Your task to perform on an android device: turn notification dots off Image 0: 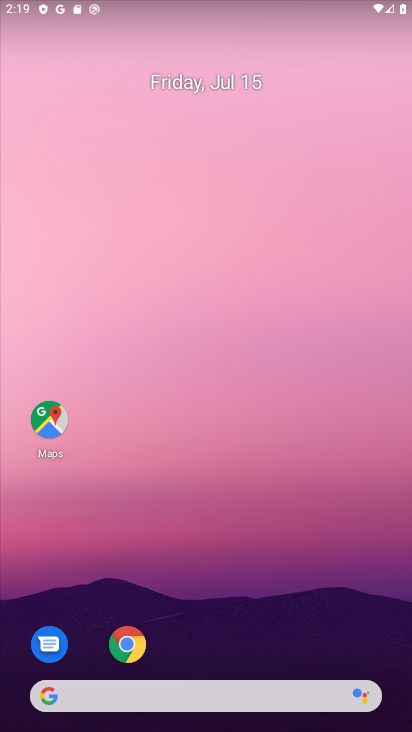
Step 0: drag from (189, 666) to (320, 132)
Your task to perform on an android device: turn notification dots off Image 1: 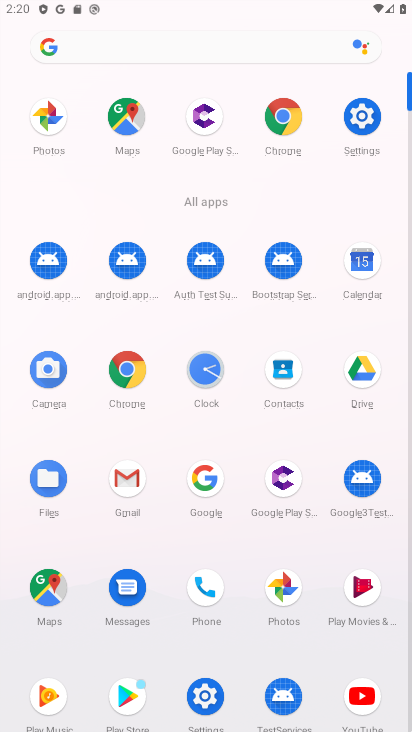
Step 1: click (212, 702)
Your task to perform on an android device: turn notification dots off Image 2: 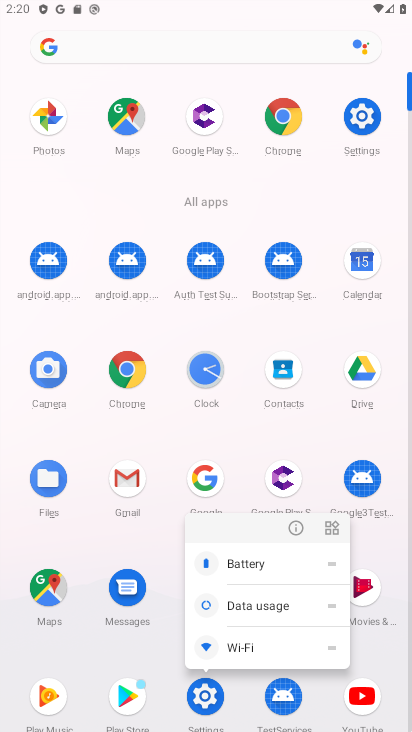
Step 2: click (206, 704)
Your task to perform on an android device: turn notification dots off Image 3: 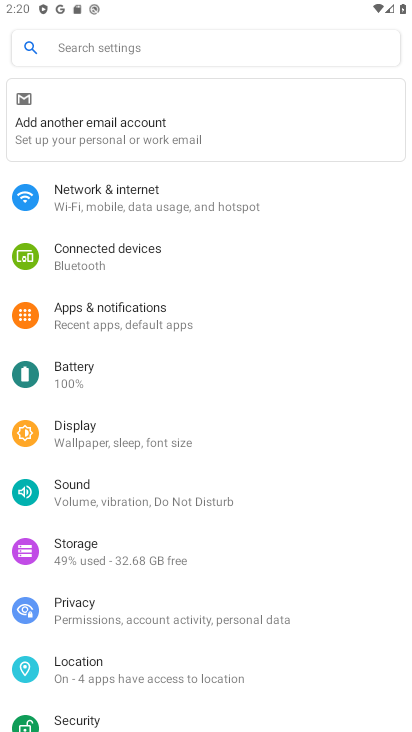
Step 3: click (178, 320)
Your task to perform on an android device: turn notification dots off Image 4: 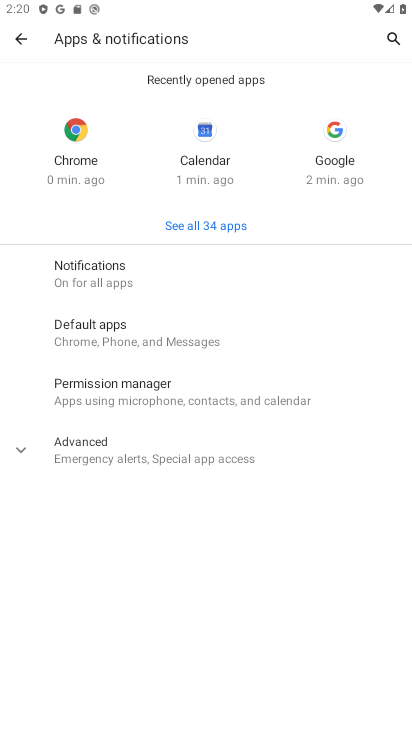
Step 4: click (148, 285)
Your task to perform on an android device: turn notification dots off Image 5: 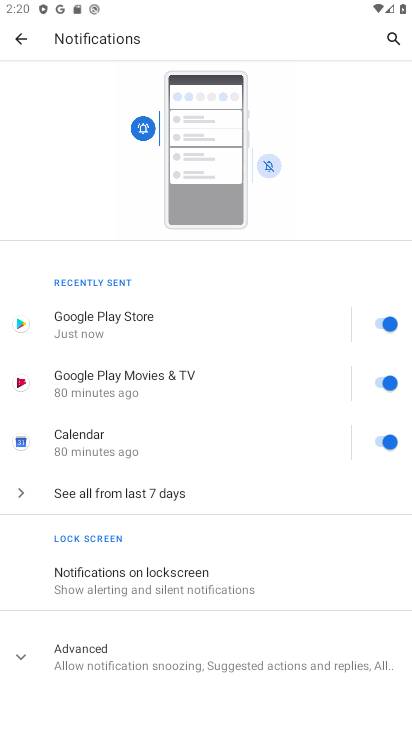
Step 5: click (119, 666)
Your task to perform on an android device: turn notification dots off Image 6: 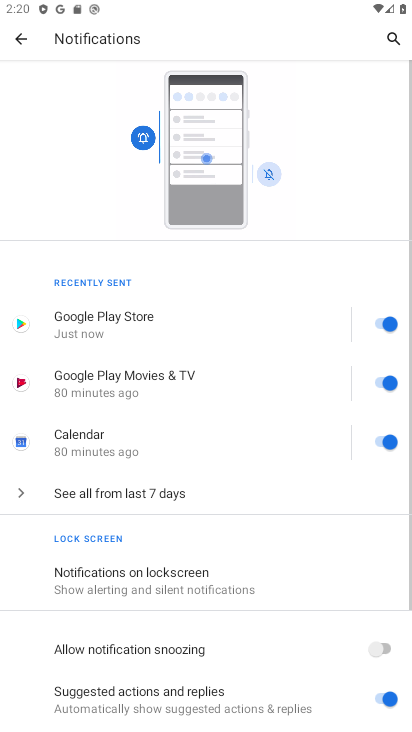
Step 6: drag from (105, 653) to (216, 141)
Your task to perform on an android device: turn notification dots off Image 7: 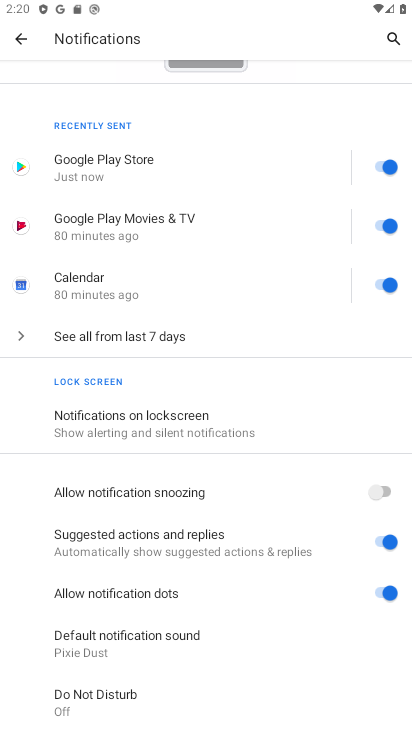
Step 7: click (380, 592)
Your task to perform on an android device: turn notification dots off Image 8: 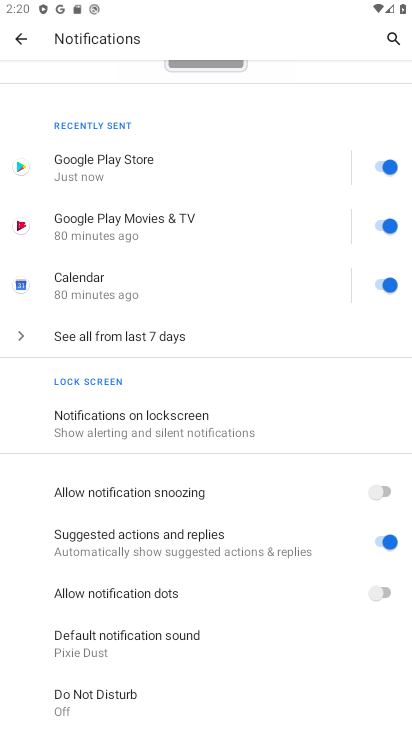
Step 8: task complete